Your task to perform on an android device: Open Google Maps Image 0: 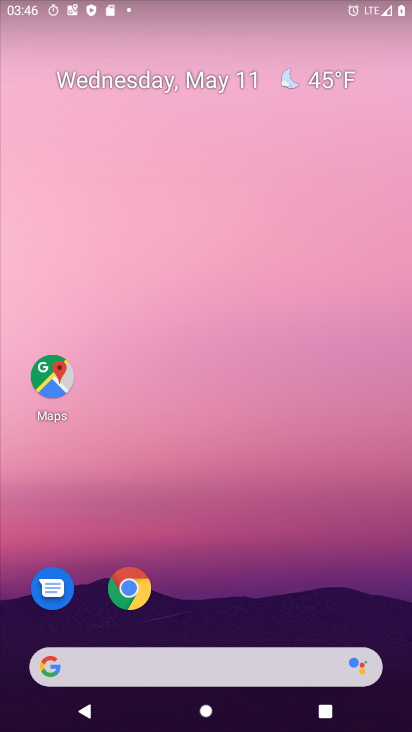
Step 0: click (57, 353)
Your task to perform on an android device: Open Google Maps Image 1: 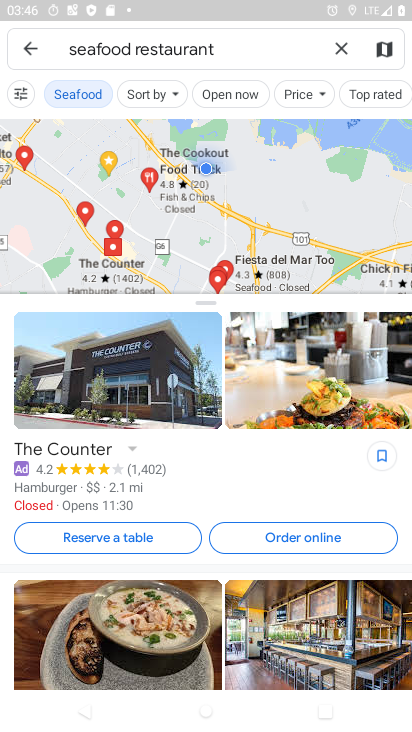
Step 1: task complete